Your task to perform on an android device: see creations saved in the google photos Image 0: 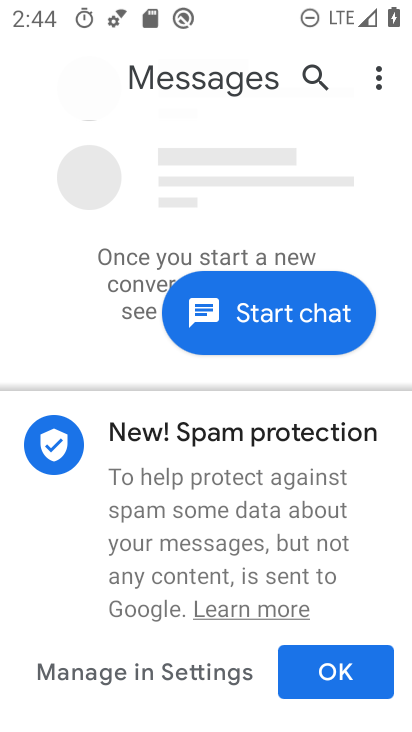
Step 0: press home button
Your task to perform on an android device: see creations saved in the google photos Image 1: 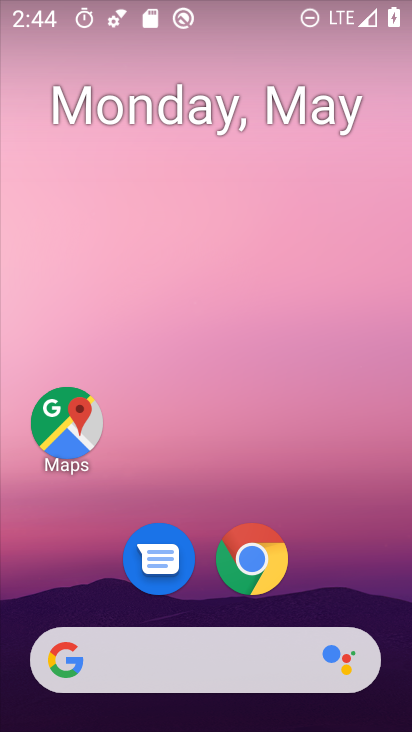
Step 1: drag from (353, 606) to (375, 12)
Your task to perform on an android device: see creations saved in the google photos Image 2: 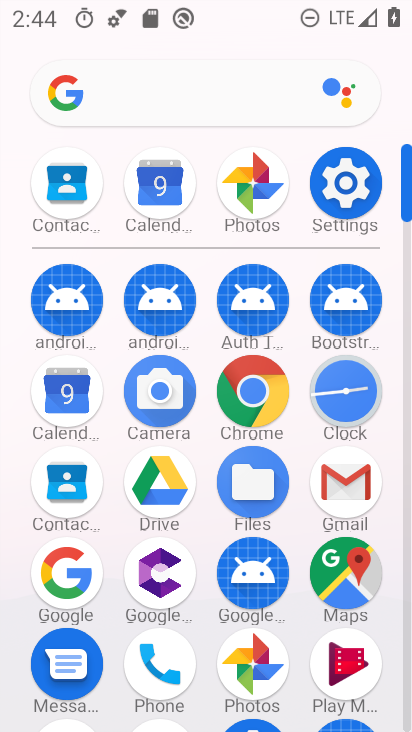
Step 2: click (251, 186)
Your task to perform on an android device: see creations saved in the google photos Image 3: 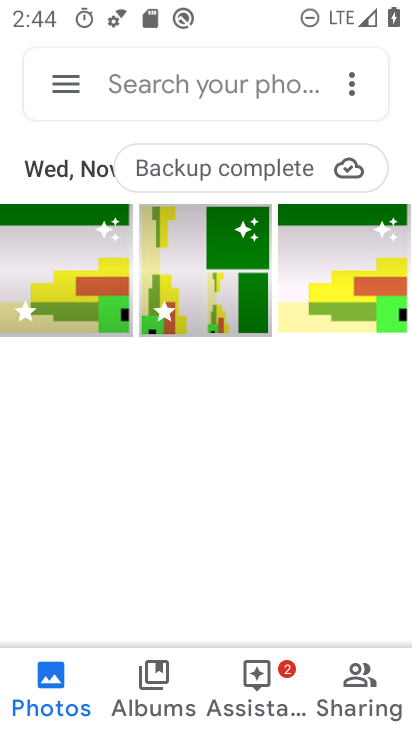
Step 3: click (142, 82)
Your task to perform on an android device: see creations saved in the google photos Image 4: 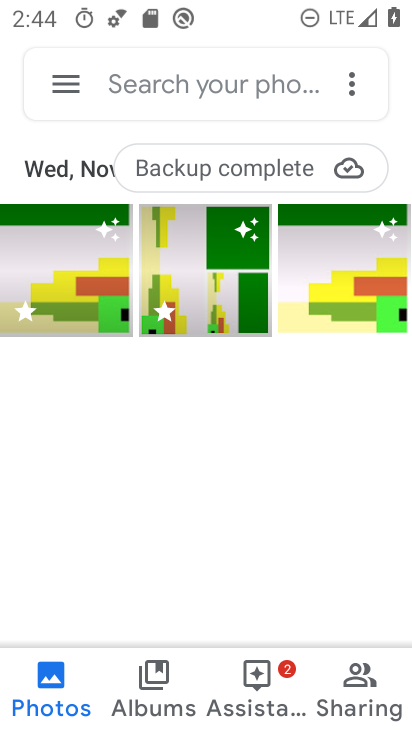
Step 4: click (127, 88)
Your task to perform on an android device: see creations saved in the google photos Image 5: 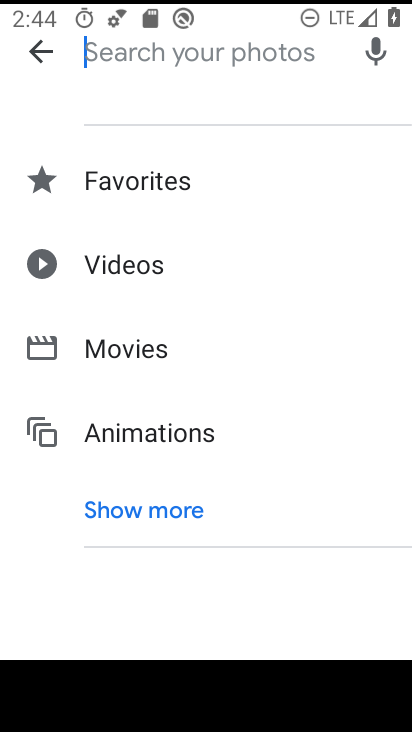
Step 5: click (143, 512)
Your task to perform on an android device: see creations saved in the google photos Image 6: 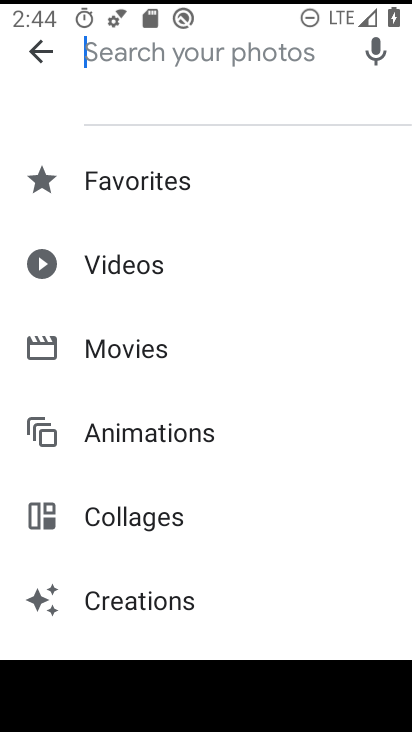
Step 6: click (140, 601)
Your task to perform on an android device: see creations saved in the google photos Image 7: 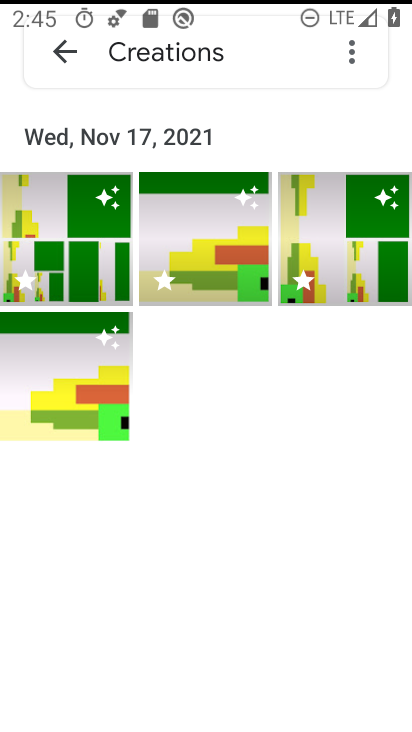
Step 7: task complete